Your task to perform on an android device: install app "Skype" Image 0: 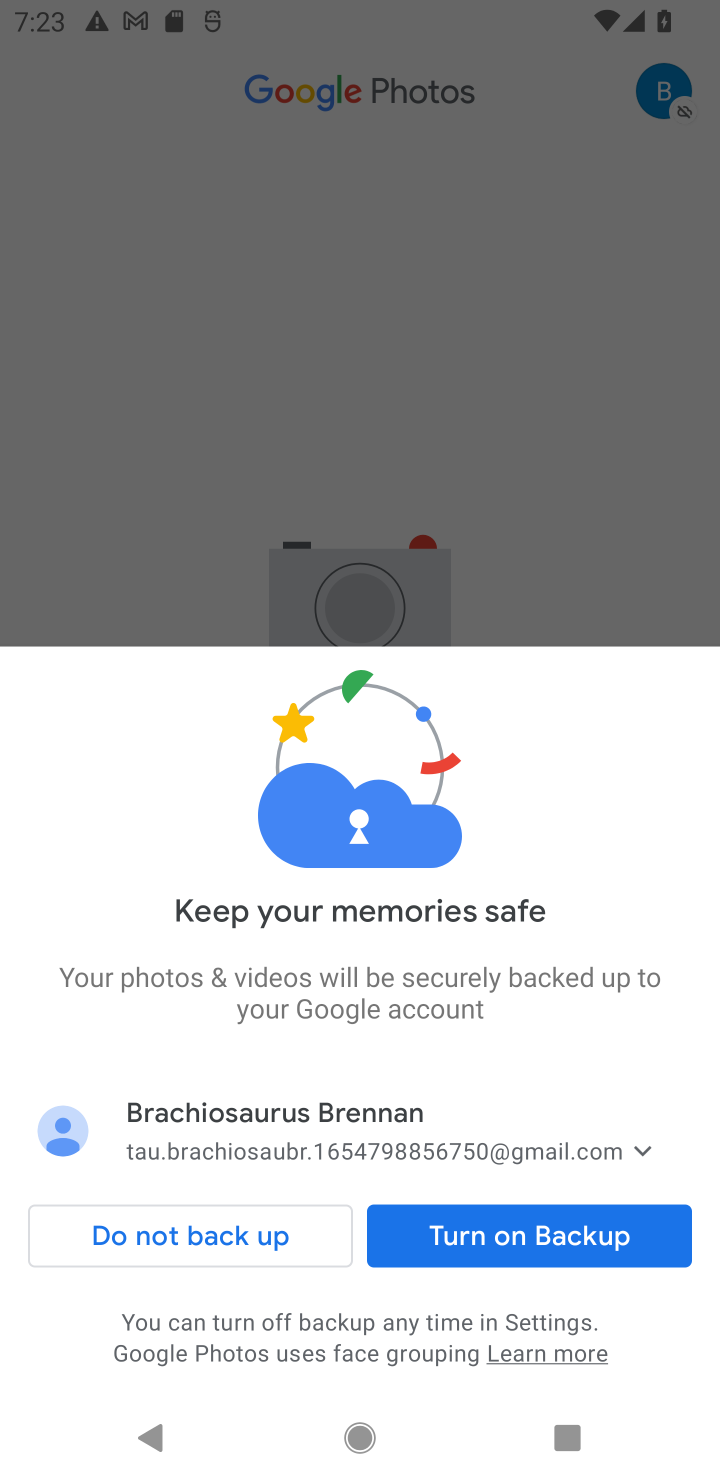
Step 0: press home button
Your task to perform on an android device: install app "Skype" Image 1: 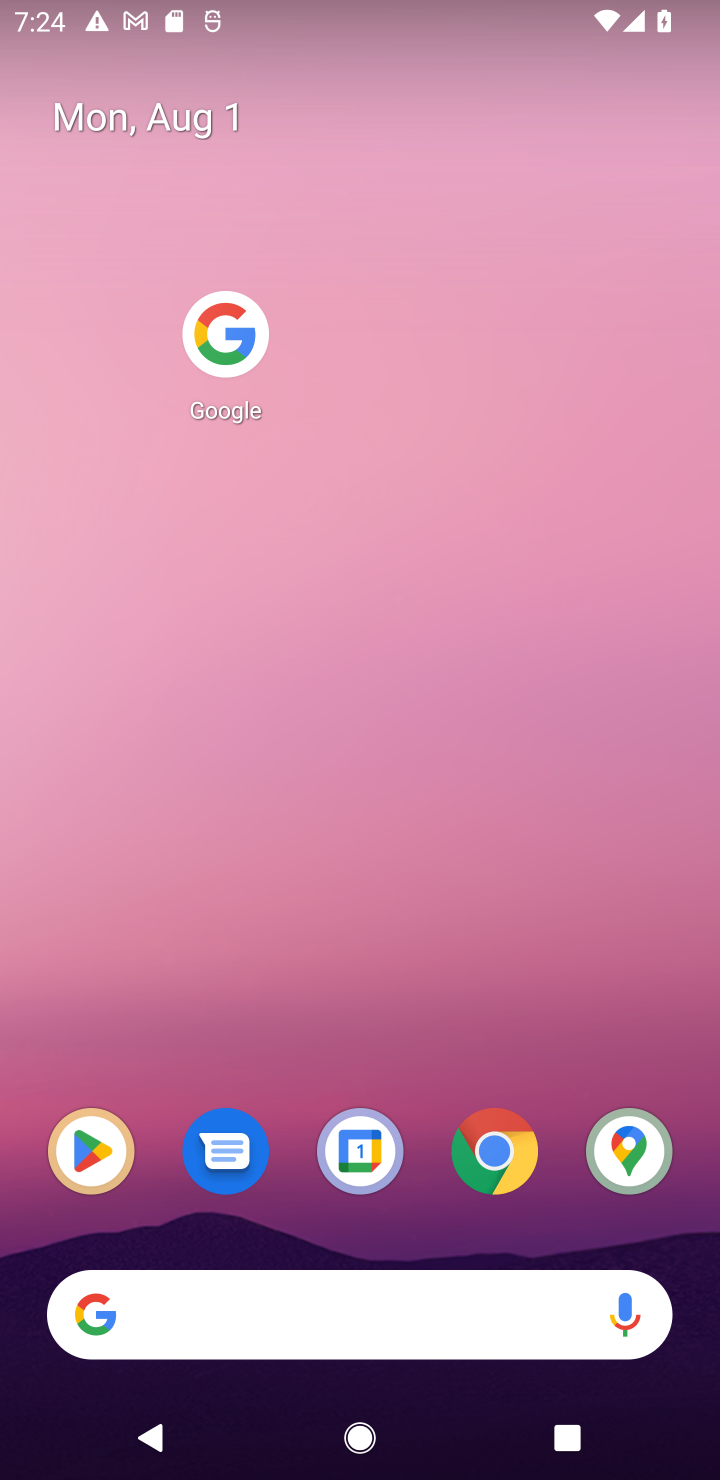
Step 1: drag from (362, 1255) to (413, 251)
Your task to perform on an android device: install app "Skype" Image 2: 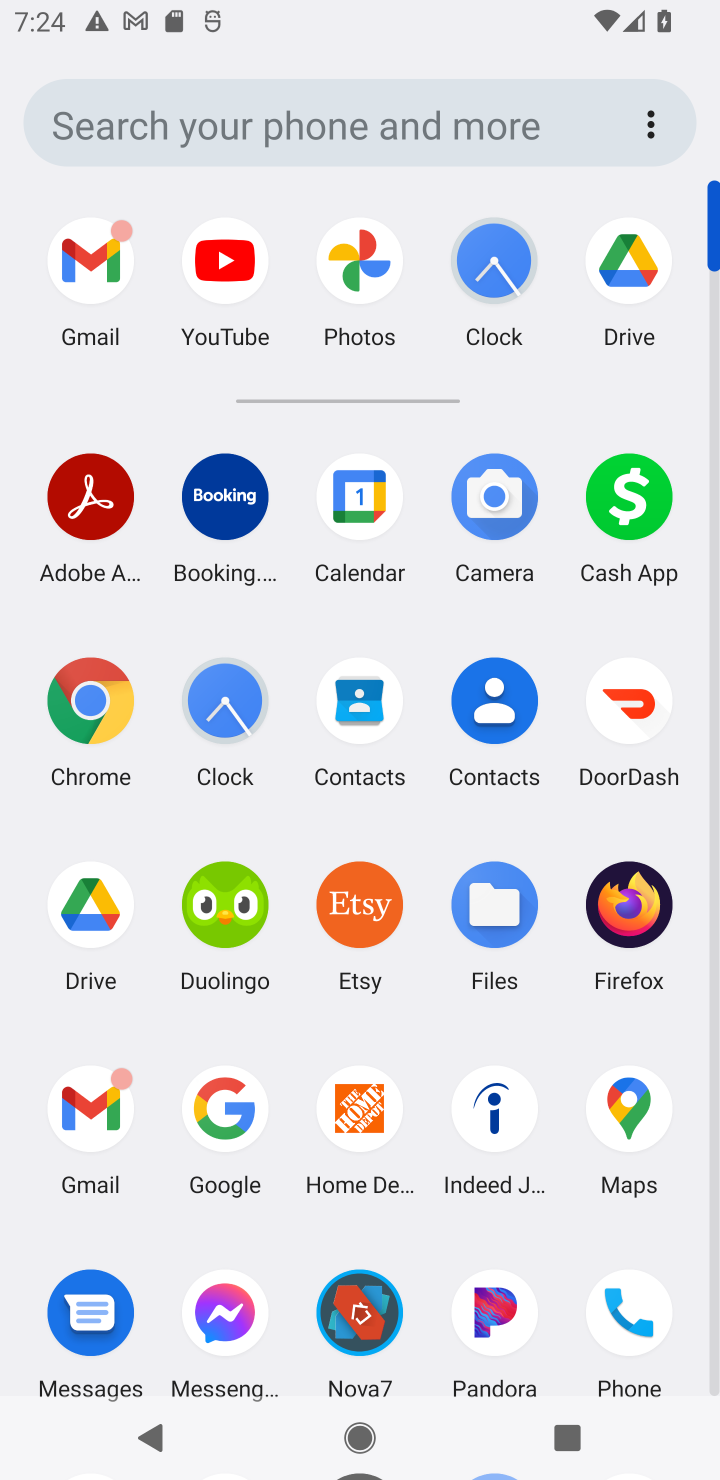
Step 2: drag from (539, 1195) to (552, 666)
Your task to perform on an android device: install app "Skype" Image 3: 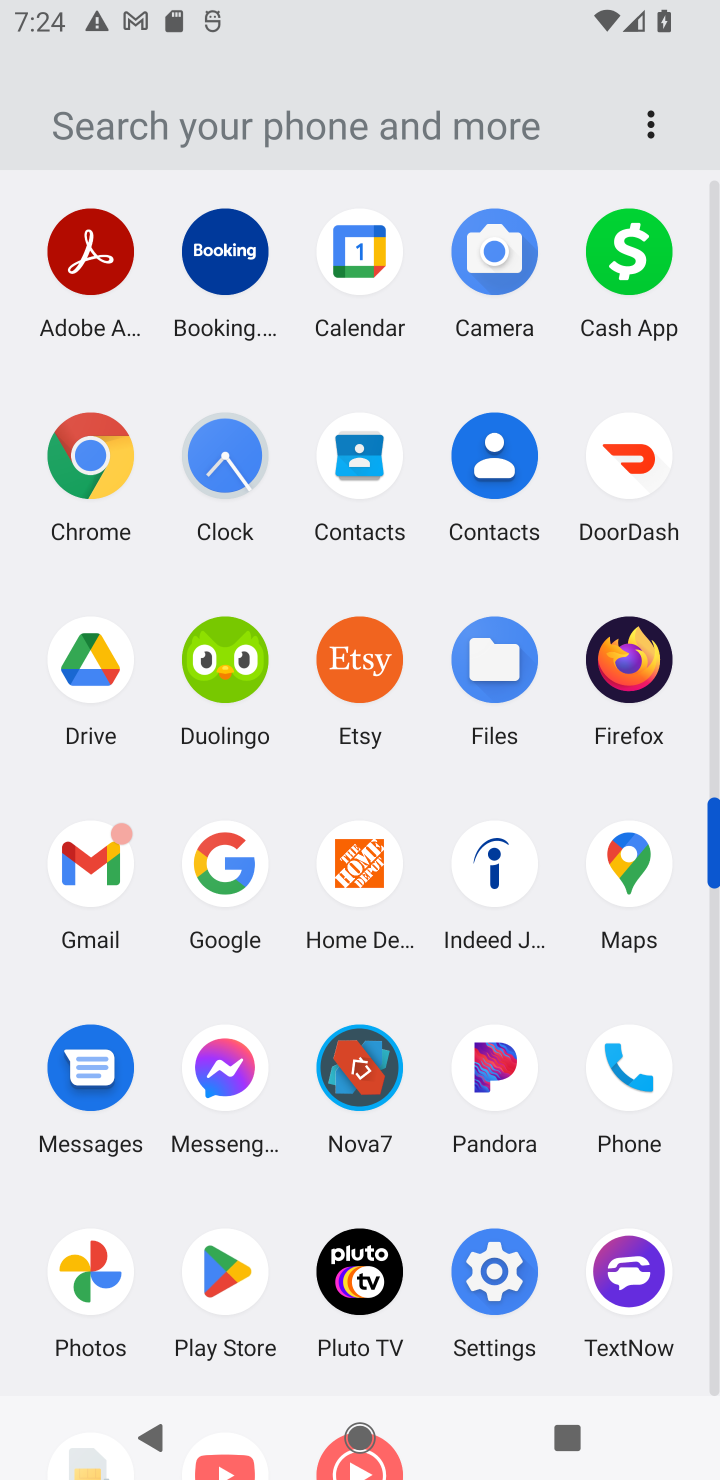
Step 3: click (220, 1271)
Your task to perform on an android device: install app "Skype" Image 4: 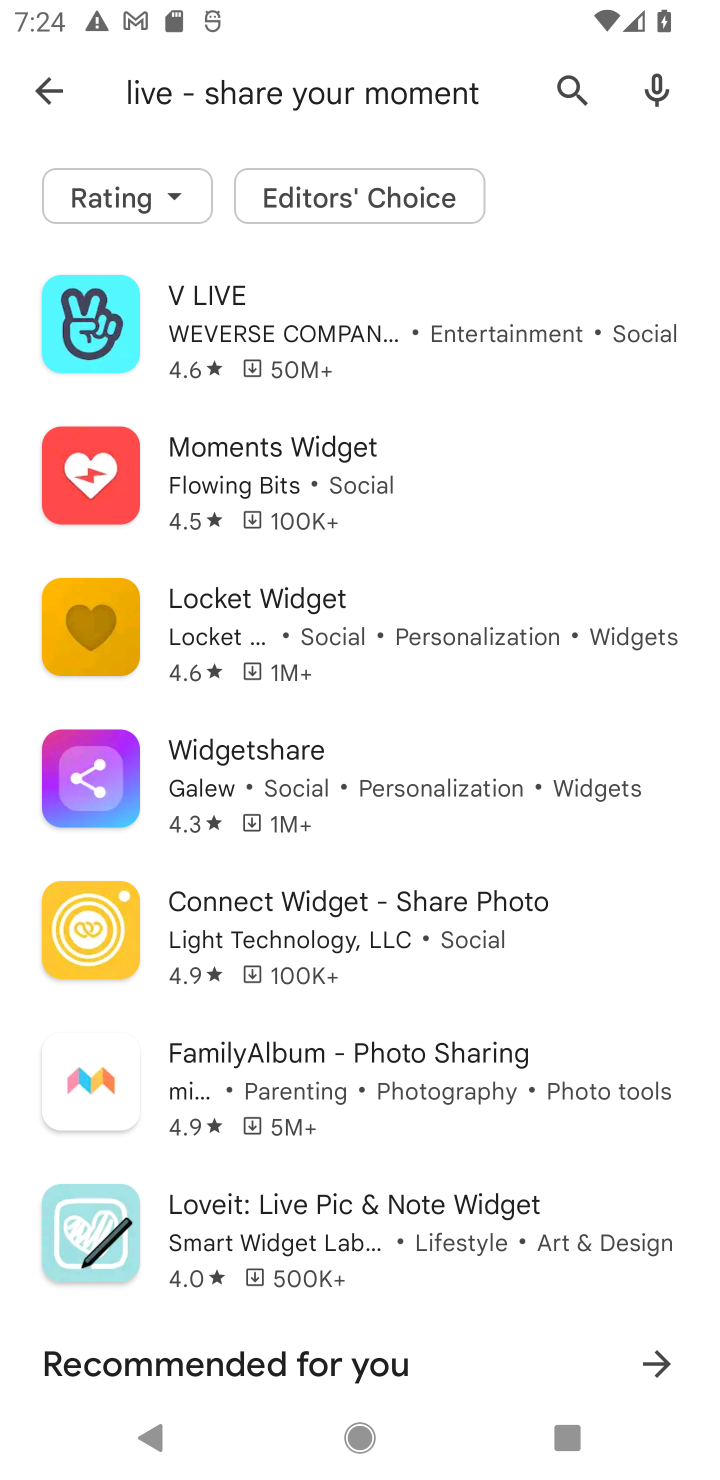
Step 4: click (578, 93)
Your task to perform on an android device: install app "Skype" Image 5: 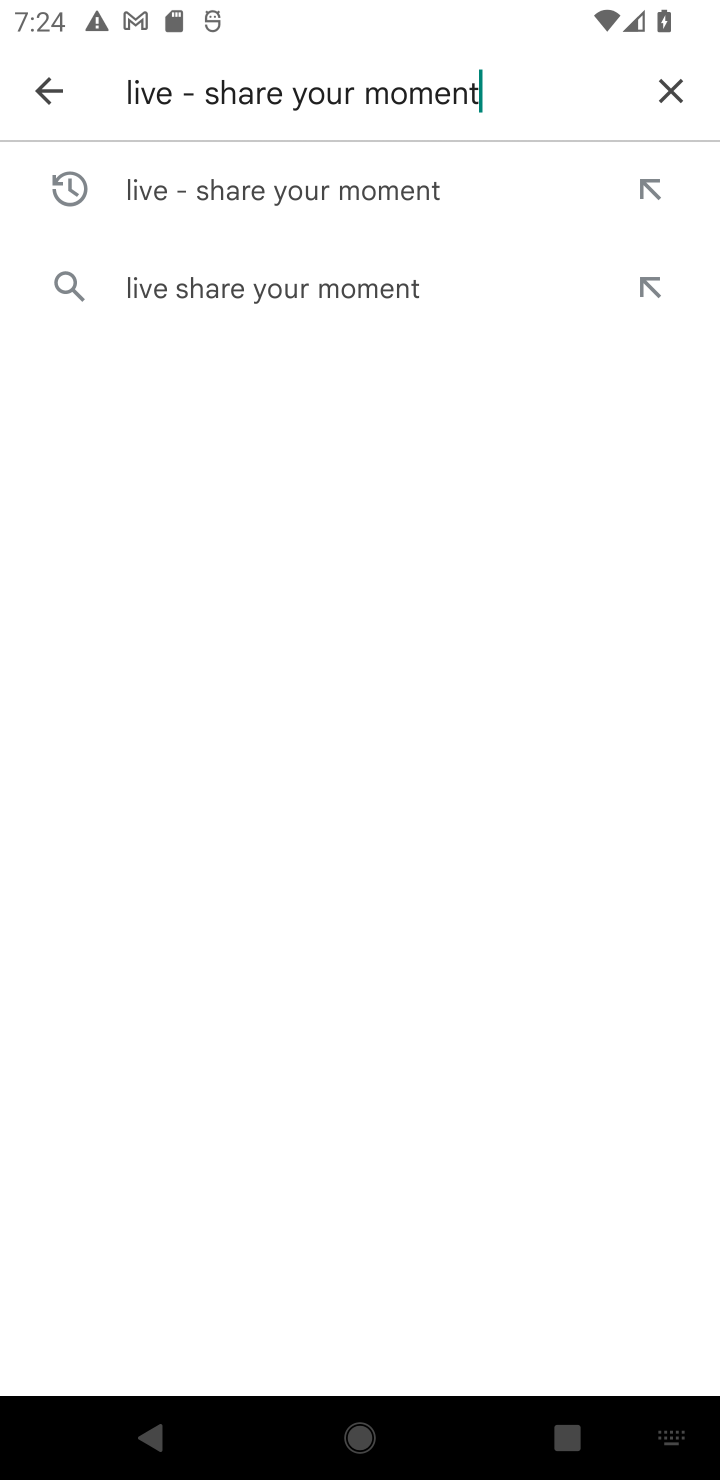
Step 5: click (683, 76)
Your task to perform on an android device: install app "Skype" Image 6: 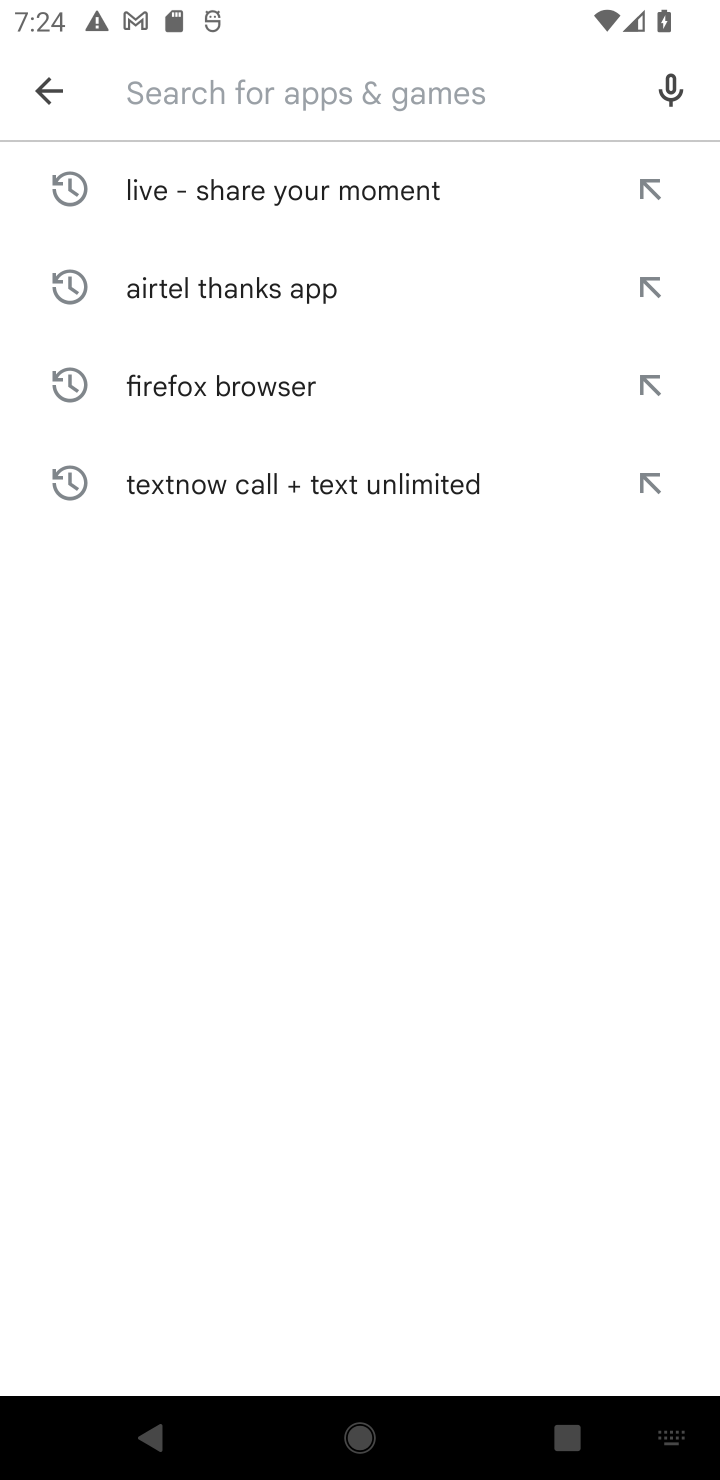
Step 6: type "skype"
Your task to perform on an android device: install app "Skype" Image 7: 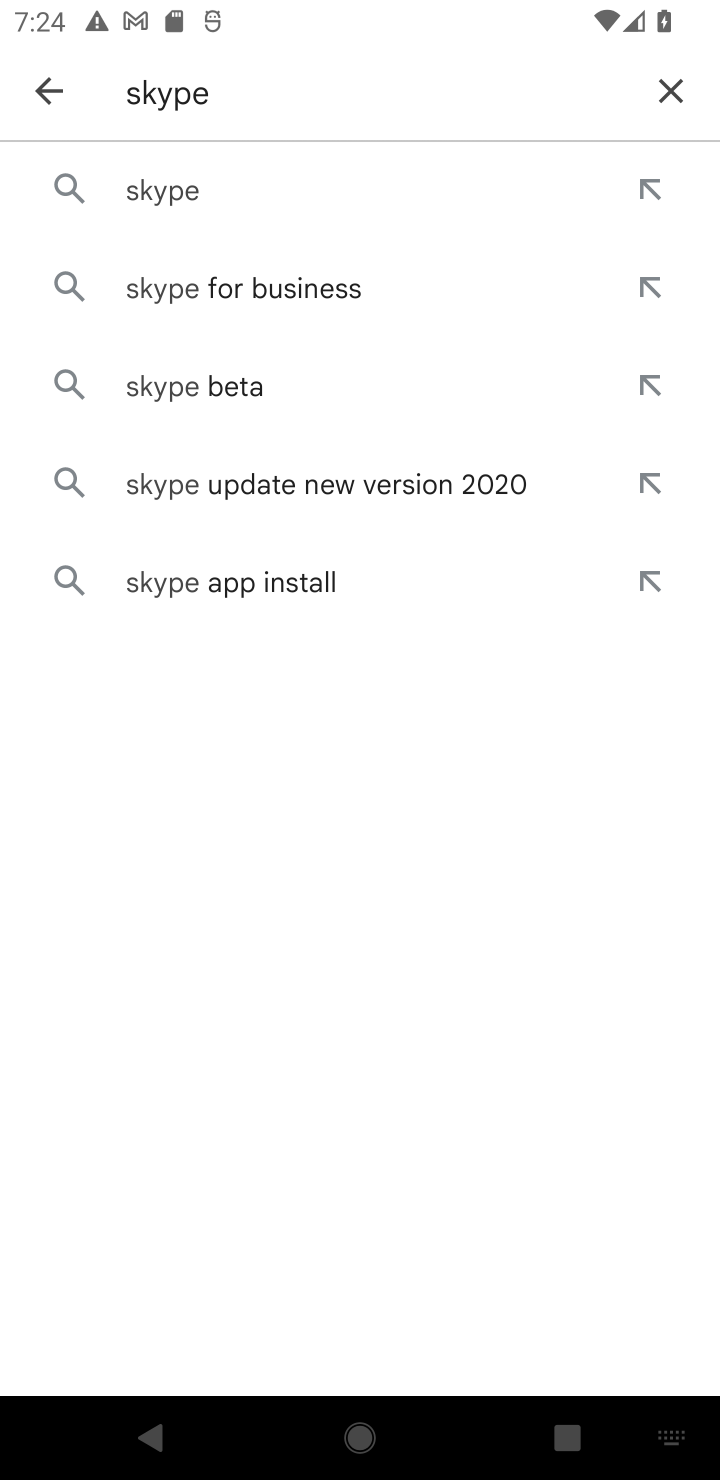
Step 7: click (461, 189)
Your task to perform on an android device: install app "Skype" Image 8: 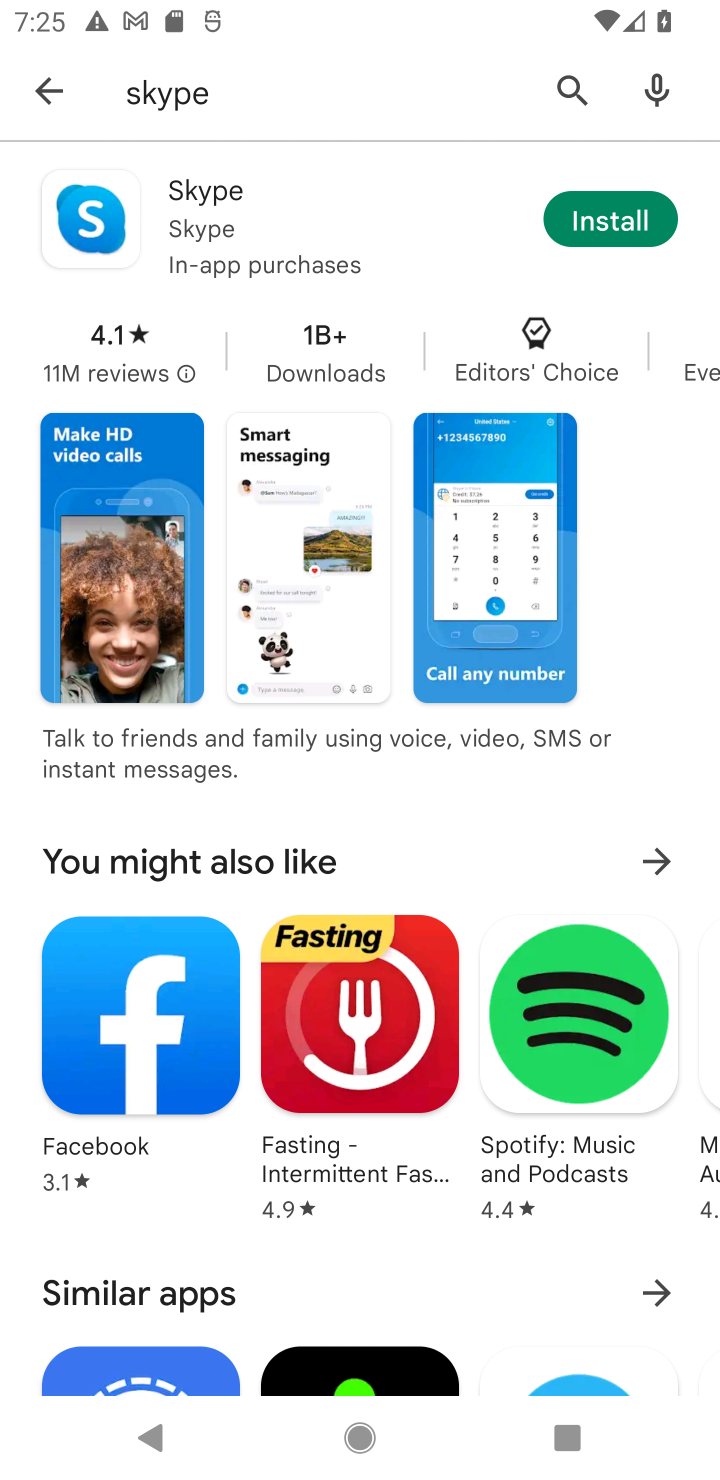
Step 8: click (601, 198)
Your task to perform on an android device: install app "Skype" Image 9: 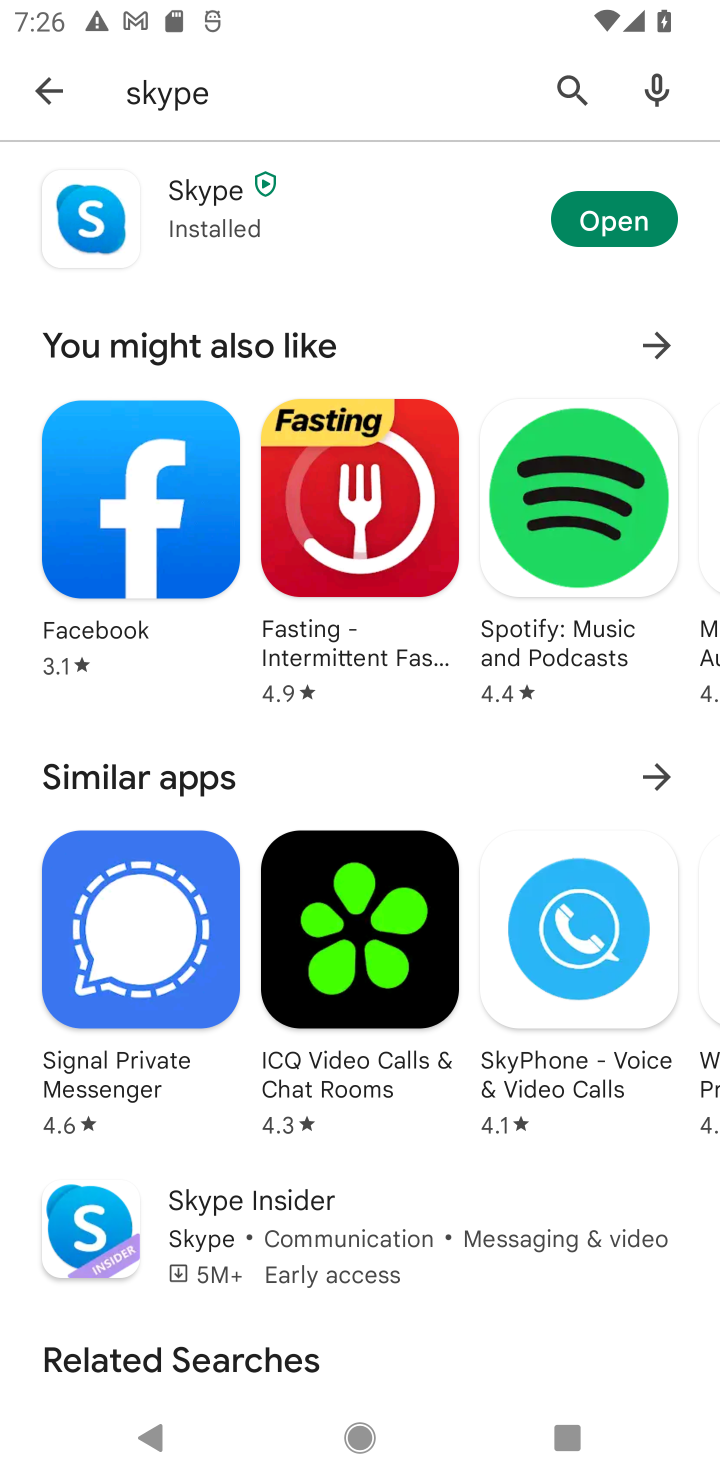
Step 9: task complete